Your task to perform on an android device: Open display settings Image 0: 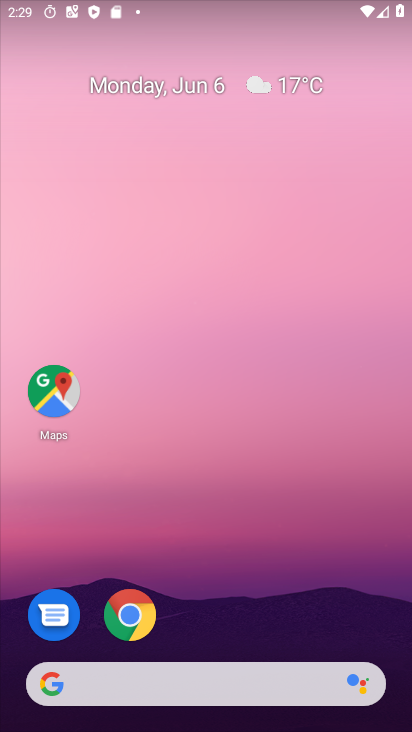
Step 0: drag from (198, 610) to (205, 205)
Your task to perform on an android device: Open display settings Image 1: 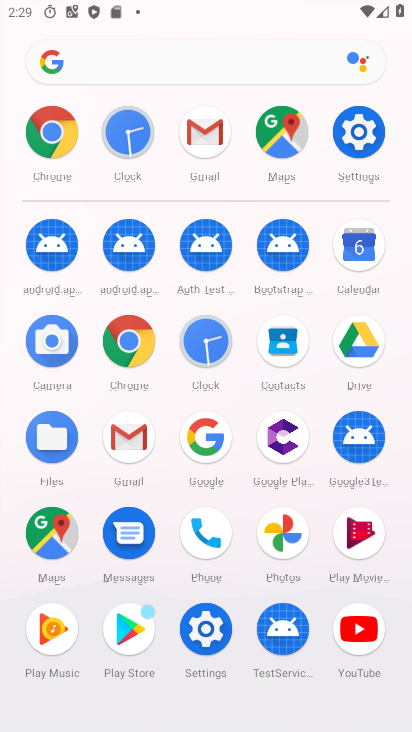
Step 1: click (209, 624)
Your task to perform on an android device: Open display settings Image 2: 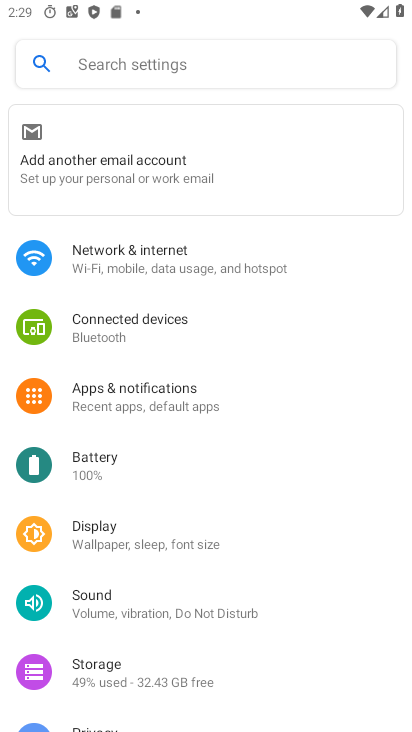
Step 2: click (111, 526)
Your task to perform on an android device: Open display settings Image 3: 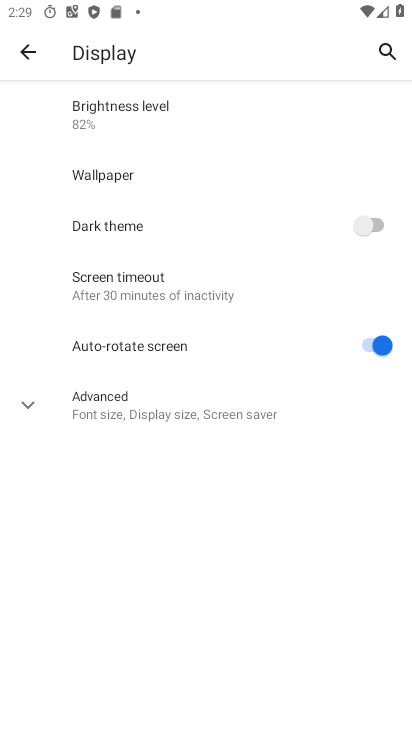
Step 3: task complete